Your task to perform on an android device: See recent photos Image 0: 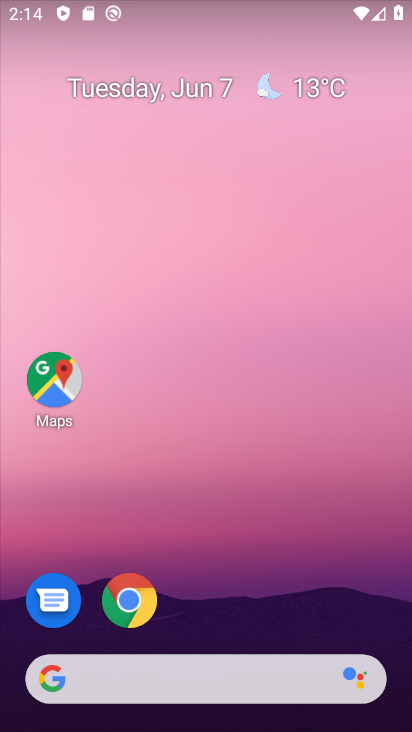
Step 0: drag from (244, 591) to (220, 154)
Your task to perform on an android device: See recent photos Image 1: 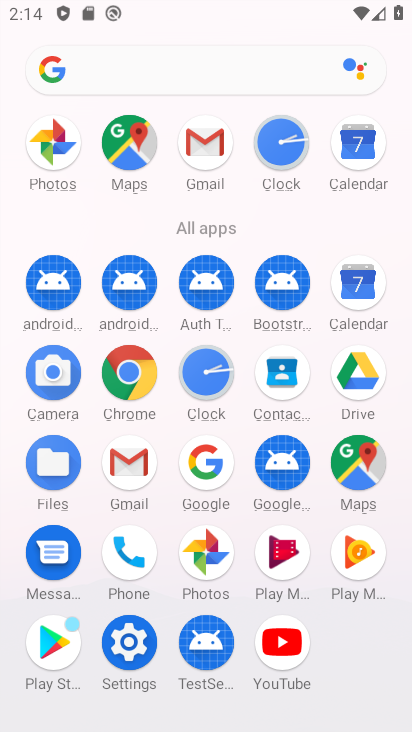
Step 1: click (53, 143)
Your task to perform on an android device: See recent photos Image 2: 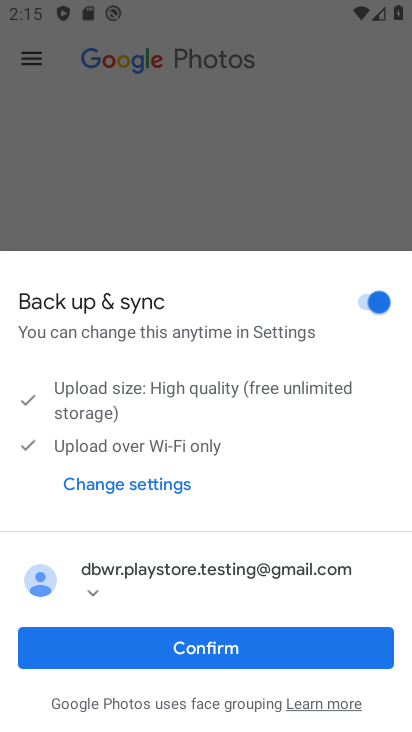
Step 2: click (244, 651)
Your task to perform on an android device: See recent photos Image 3: 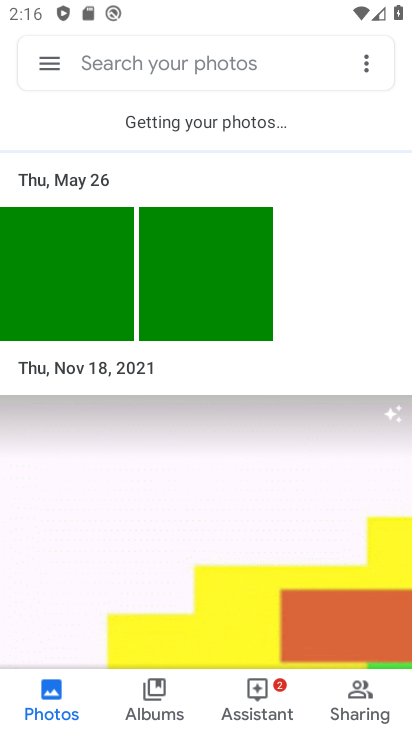
Step 3: task complete